Your task to perform on an android device: change timer sound Image 0: 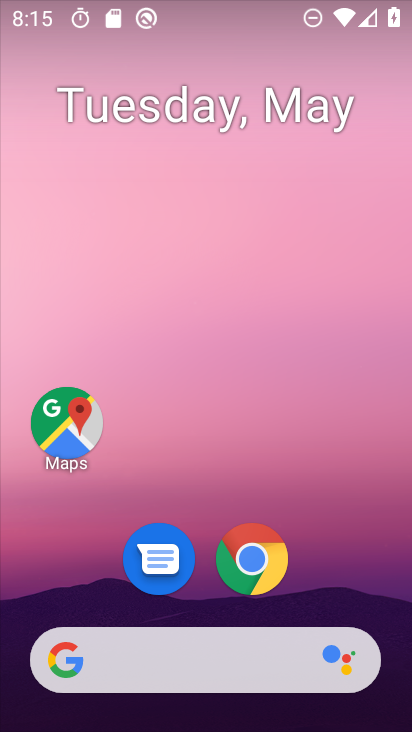
Step 0: drag from (402, 667) to (267, 48)
Your task to perform on an android device: change timer sound Image 1: 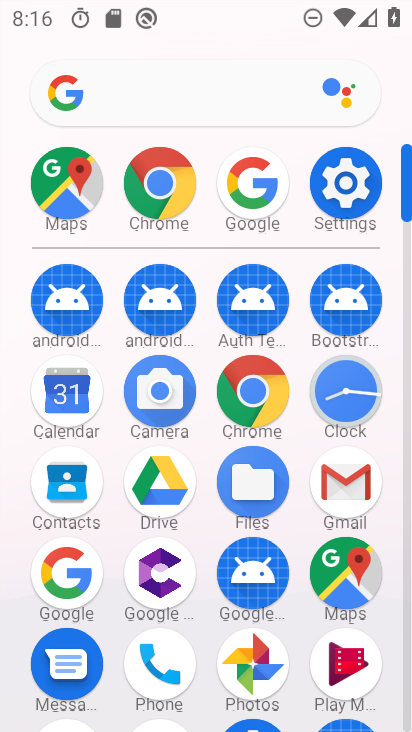
Step 1: click (332, 413)
Your task to perform on an android device: change timer sound Image 2: 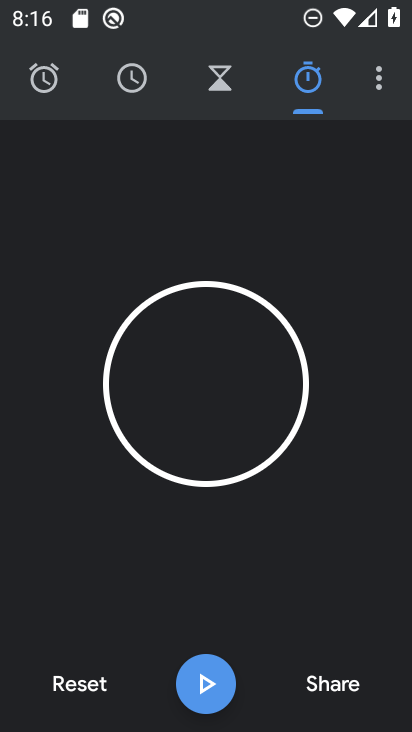
Step 2: click (370, 67)
Your task to perform on an android device: change timer sound Image 3: 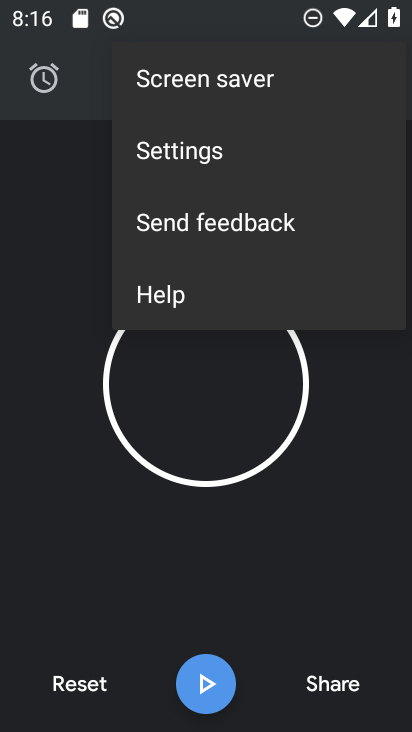
Step 3: click (251, 147)
Your task to perform on an android device: change timer sound Image 4: 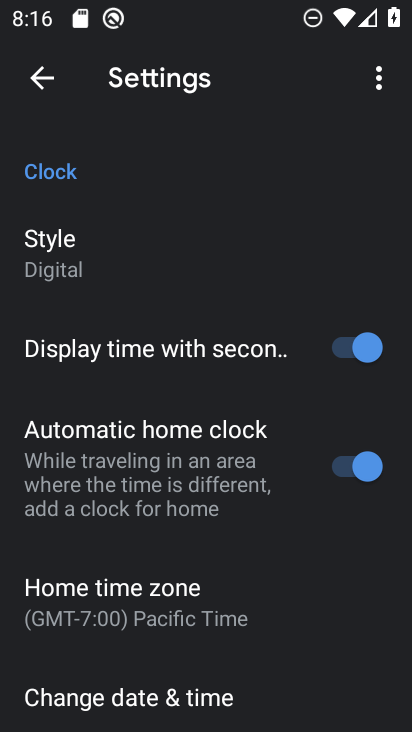
Step 4: drag from (181, 630) to (207, 192)
Your task to perform on an android device: change timer sound Image 5: 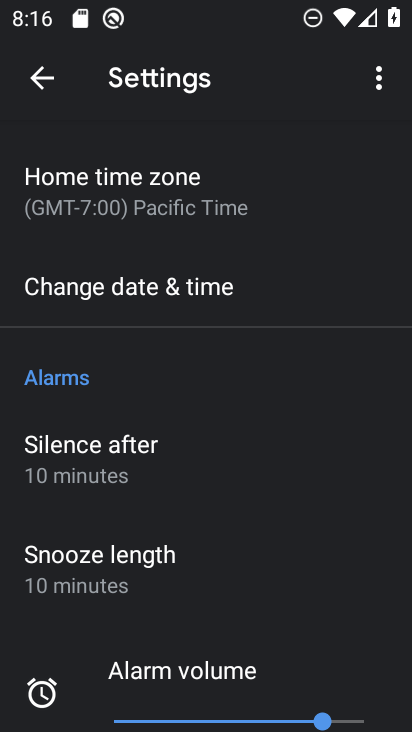
Step 5: drag from (196, 600) to (236, 277)
Your task to perform on an android device: change timer sound Image 6: 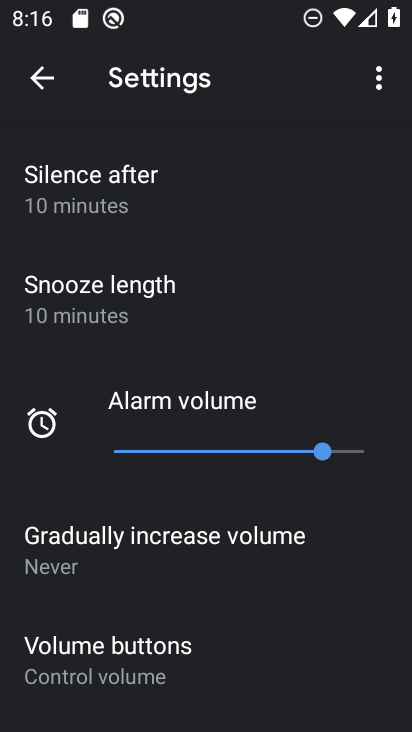
Step 6: drag from (197, 636) to (213, 220)
Your task to perform on an android device: change timer sound Image 7: 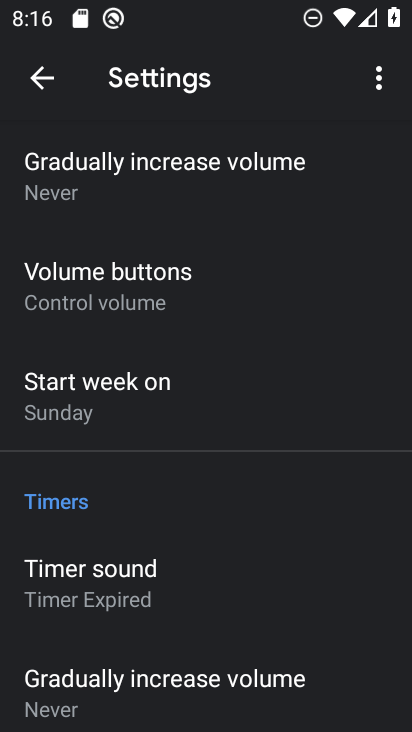
Step 7: click (177, 590)
Your task to perform on an android device: change timer sound Image 8: 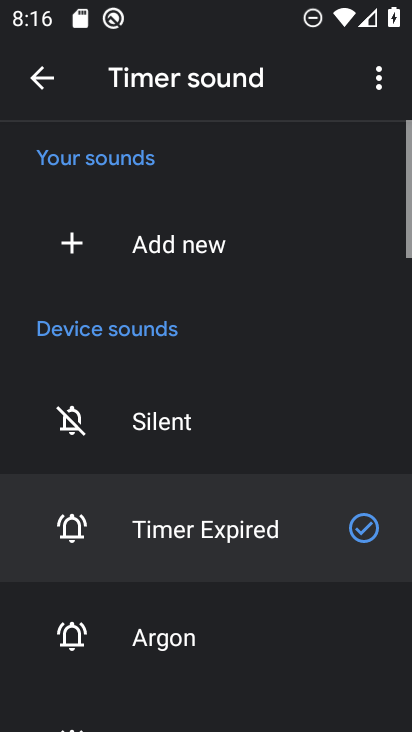
Step 8: click (208, 645)
Your task to perform on an android device: change timer sound Image 9: 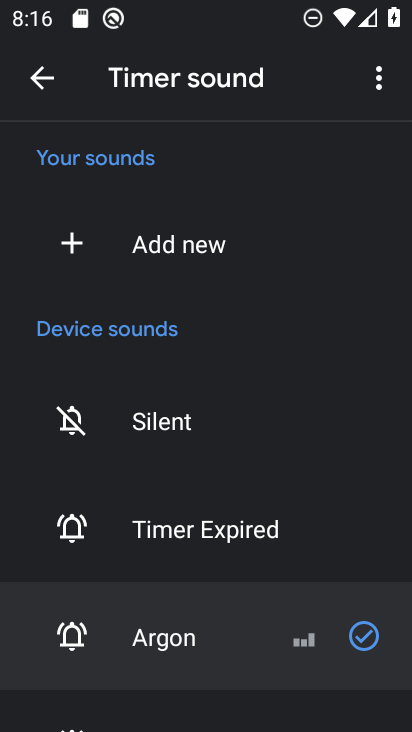
Step 9: task complete